Your task to perform on an android device: Open Google Chrome and click the shortcut for Amazon.com Image 0: 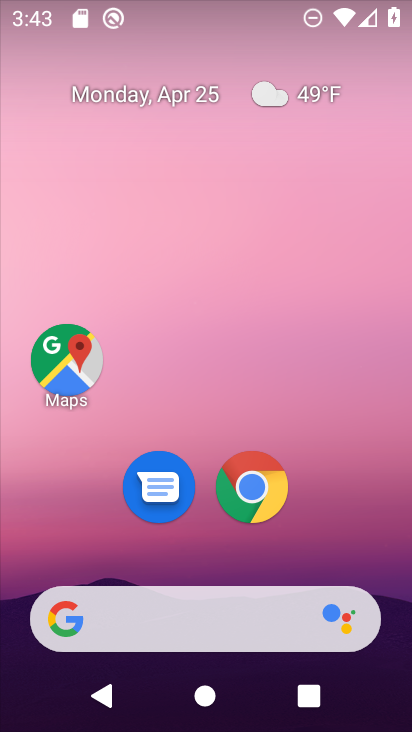
Step 0: click (250, 492)
Your task to perform on an android device: Open Google Chrome and click the shortcut for Amazon.com Image 1: 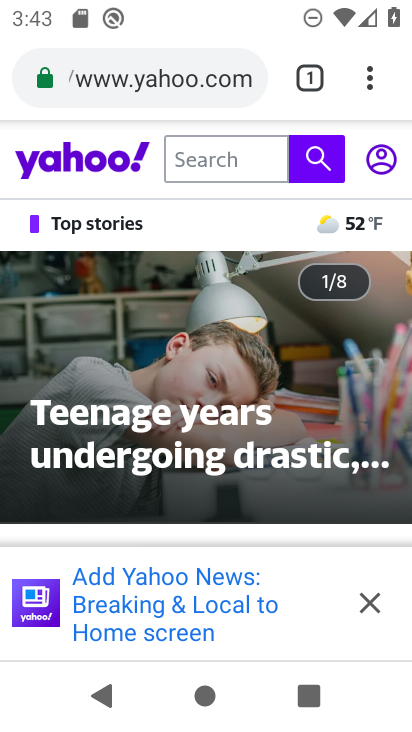
Step 1: drag from (373, 77) to (129, 242)
Your task to perform on an android device: Open Google Chrome and click the shortcut for Amazon.com Image 2: 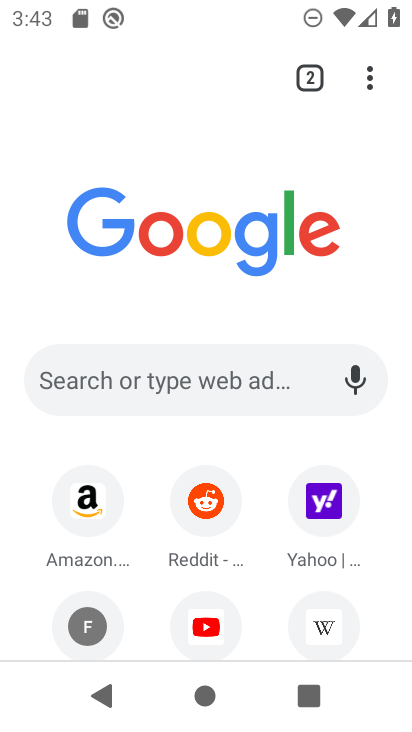
Step 2: click (93, 512)
Your task to perform on an android device: Open Google Chrome and click the shortcut for Amazon.com Image 3: 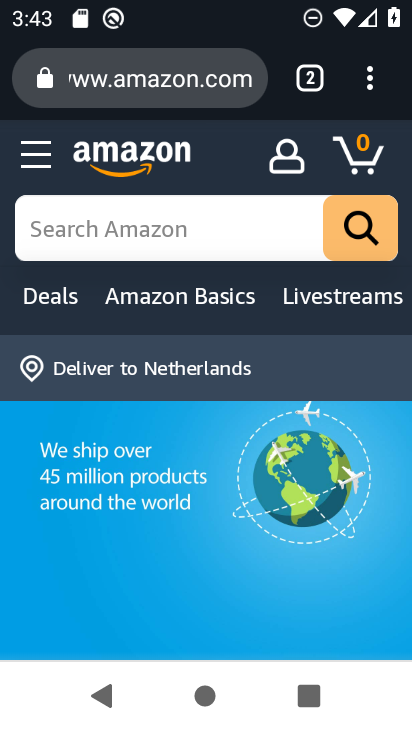
Step 3: task complete